Your task to perform on an android device: change alarm snooze length Image 0: 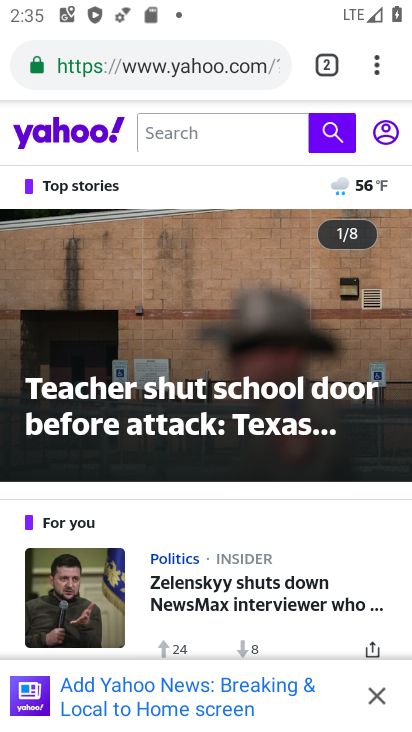
Step 0: press home button
Your task to perform on an android device: change alarm snooze length Image 1: 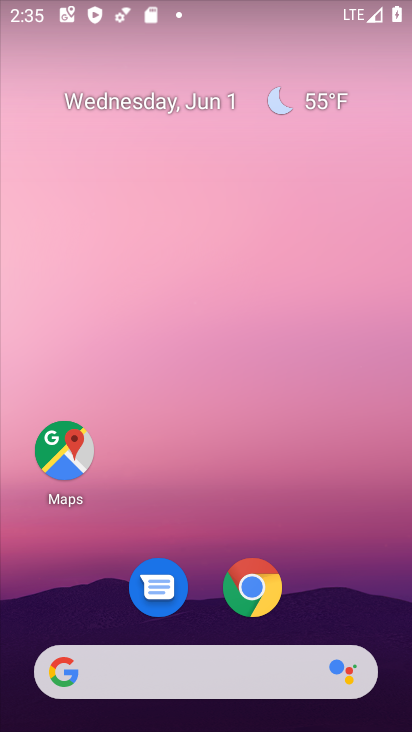
Step 1: drag from (207, 669) to (227, 18)
Your task to perform on an android device: change alarm snooze length Image 2: 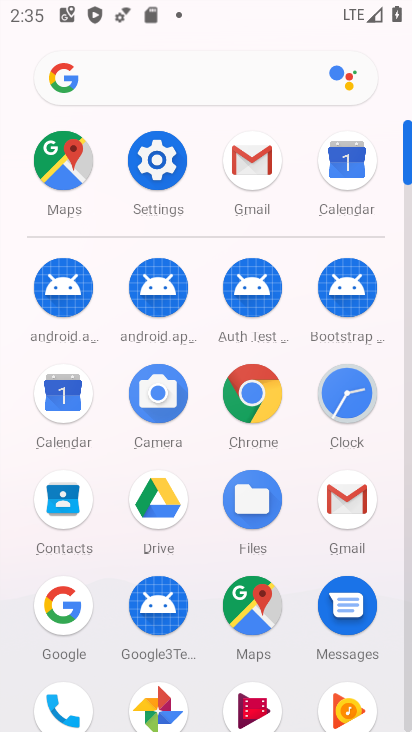
Step 2: click (352, 403)
Your task to perform on an android device: change alarm snooze length Image 3: 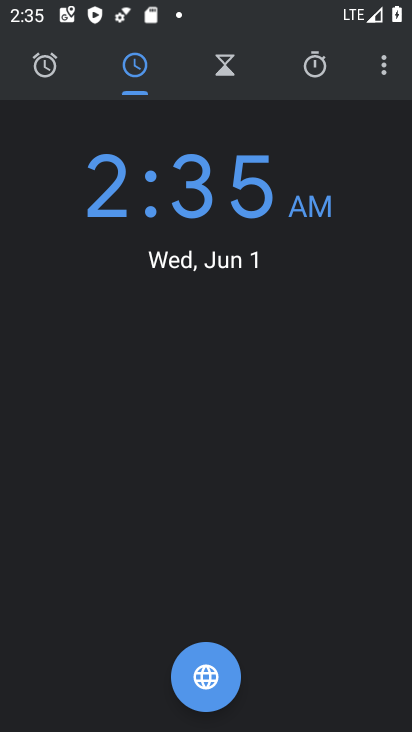
Step 3: click (377, 59)
Your task to perform on an android device: change alarm snooze length Image 4: 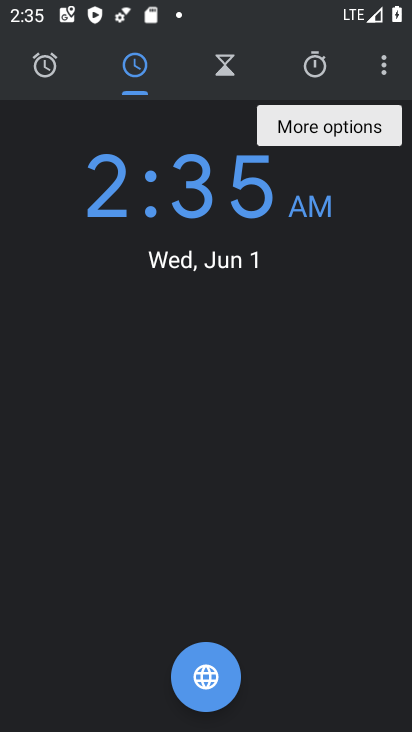
Step 4: click (377, 59)
Your task to perform on an android device: change alarm snooze length Image 5: 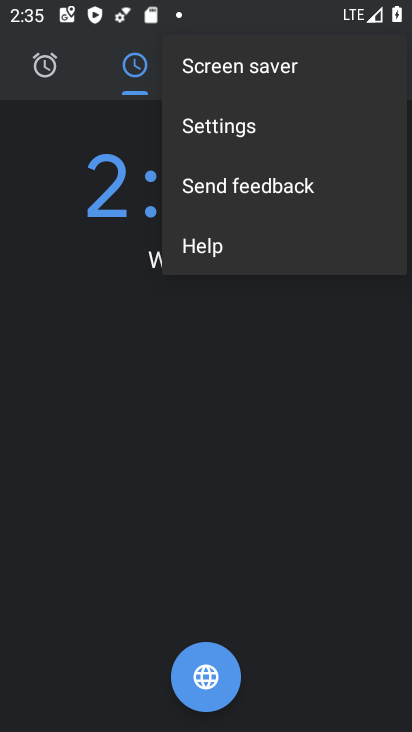
Step 5: click (272, 143)
Your task to perform on an android device: change alarm snooze length Image 6: 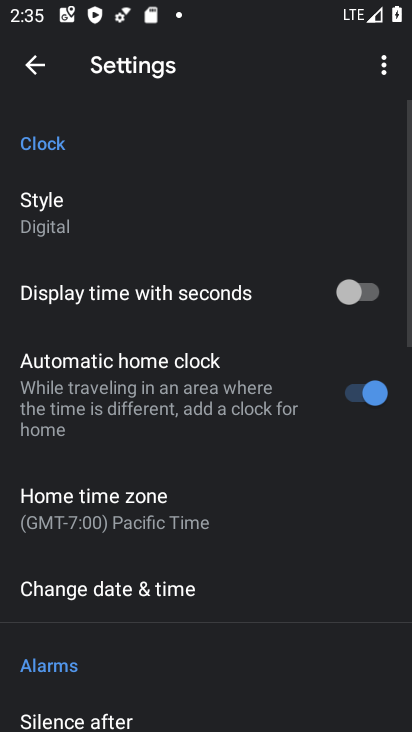
Step 6: drag from (185, 631) to (167, 261)
Your task to perform on an android device: change alarm snooze length Image 7: 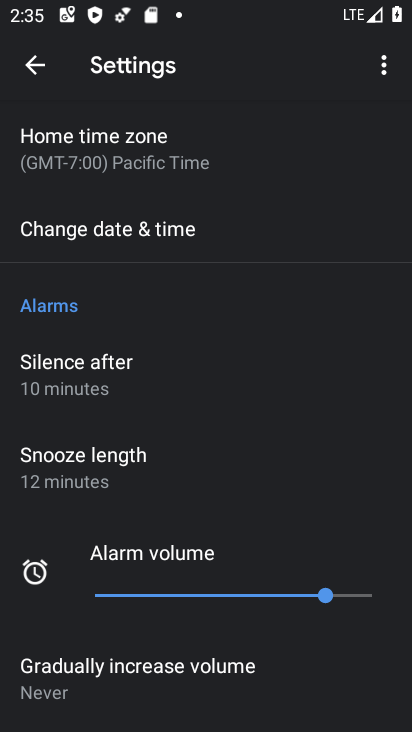
Step 7: click (85, 453)
Your task to perform on an android device: change alarm snooze length Image 8: 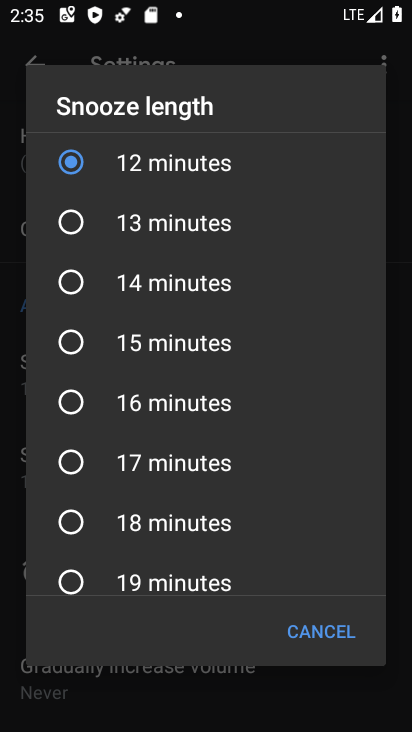
Step 8: click (152, 587)
Your task to perform on an android device: change alarm snooze length Image 9: 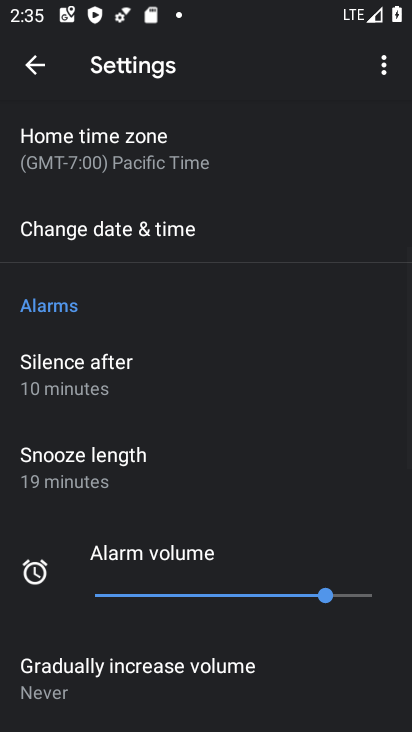
Step 9: task complete